Your task to perform on an android device: View the shopping cart on ebay.com. Search for logitech g903 on ebay.com, select the first entry, add it to the cart, then select checkout. Image 0: 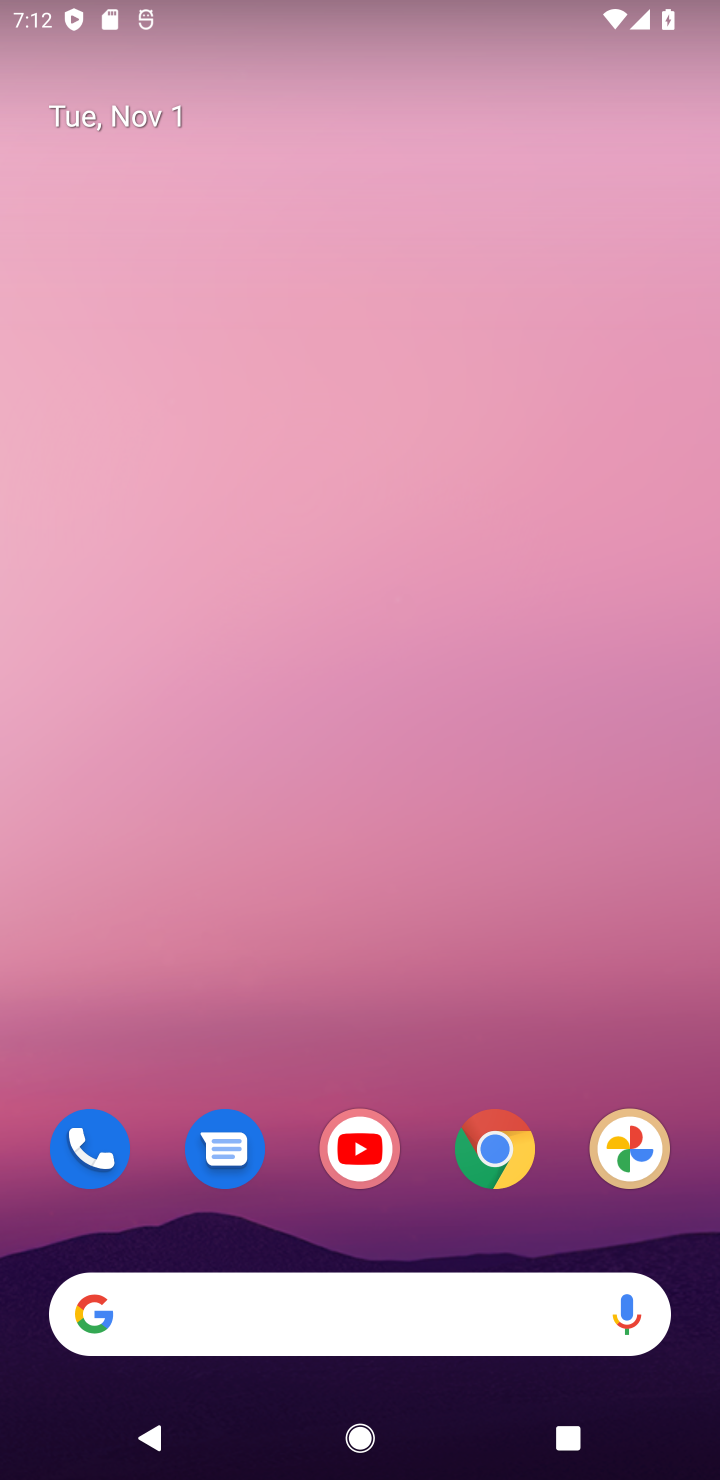
Step 0: drag from (416, 1246) to (576, 252)
Your task to perform on an android device: View the shopping cart on ebay.com. Search for logitech g903 on ebay.com, select the first entry, add it to the cart, then select checkout. Image 1: 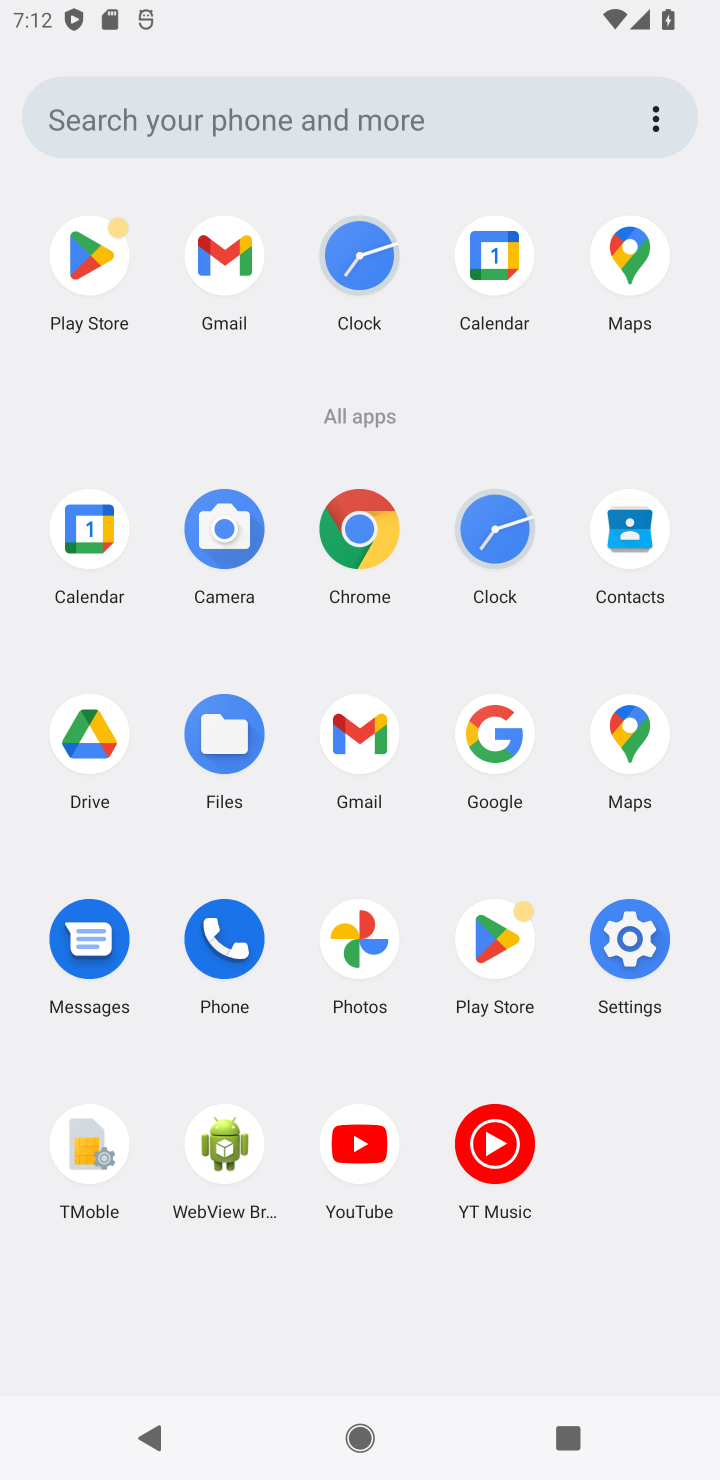
Step 1: click (359, 531)
Your task to perform on an android device: View the shopping cart on ebay.com. Search for logitech g903 on ebay.com, select the first entry, add it to the cart, then select checkout. Image 2: 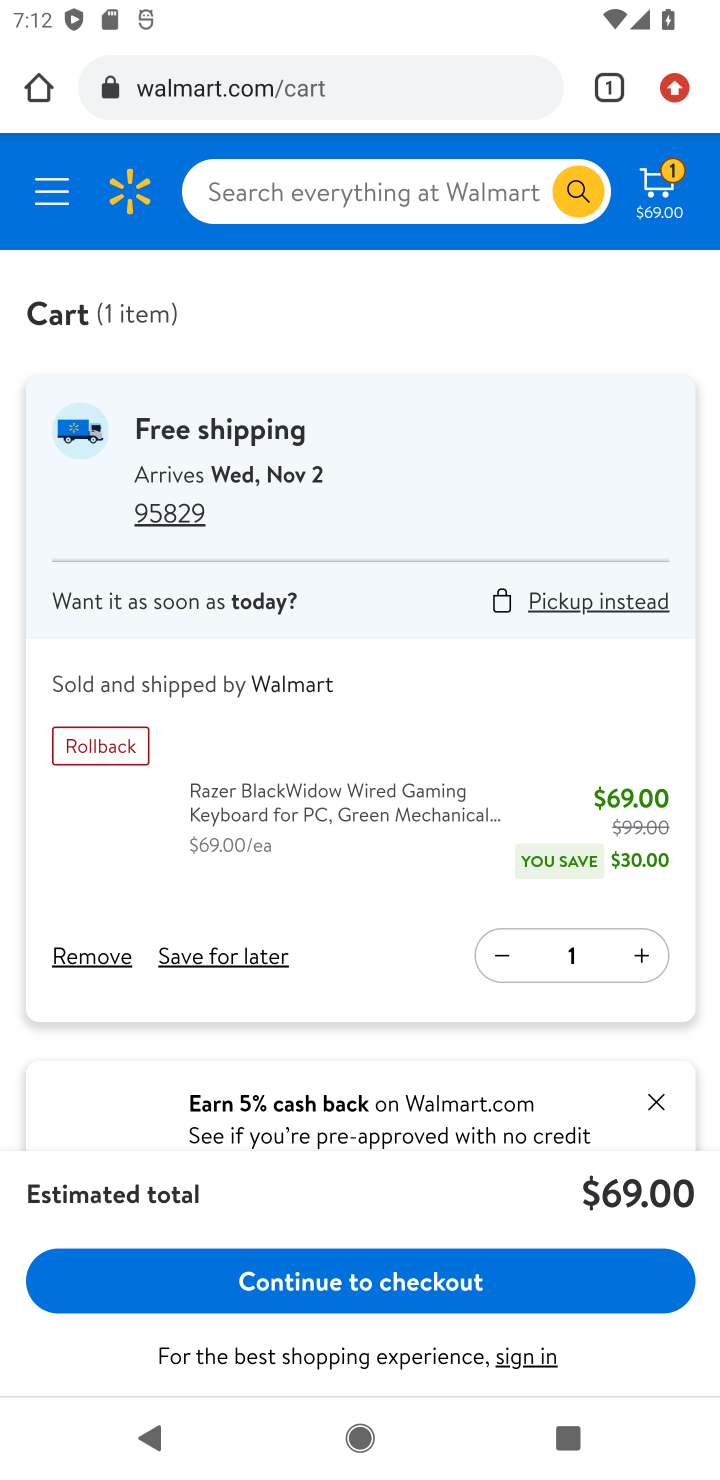
Step 2: click (206, 99)
Your task to perform on an android device: View the shopping cart on ebay.com. Search for logitech g903 on ebay.com, select the first entry, add it to the cart, then select checkout. Image 3: 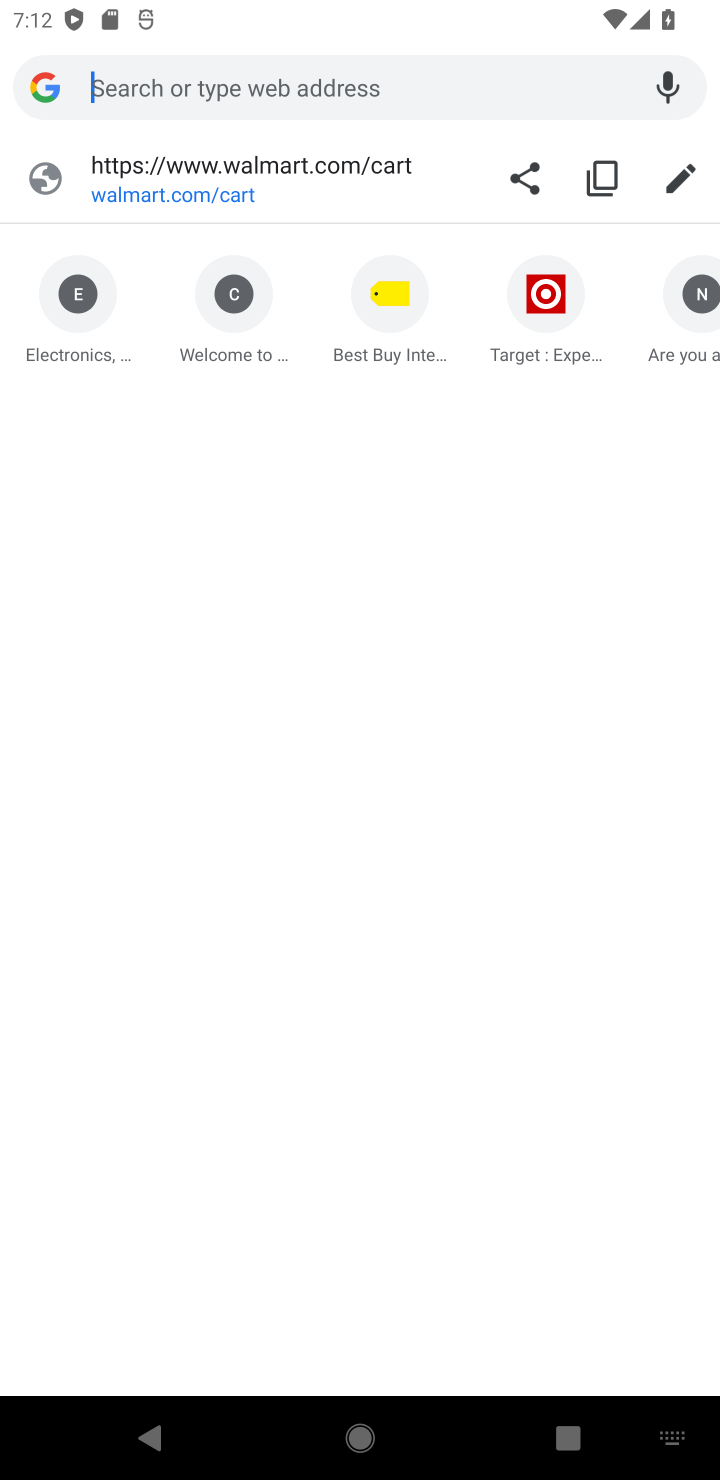
Step 3: type "ebay.com"
Your task to perform on an android device: View the shopping cart on ebay.com. Search for logitech g903 on ebay.com, select the first entry, add it to the cart, then select checkout. Image 4: 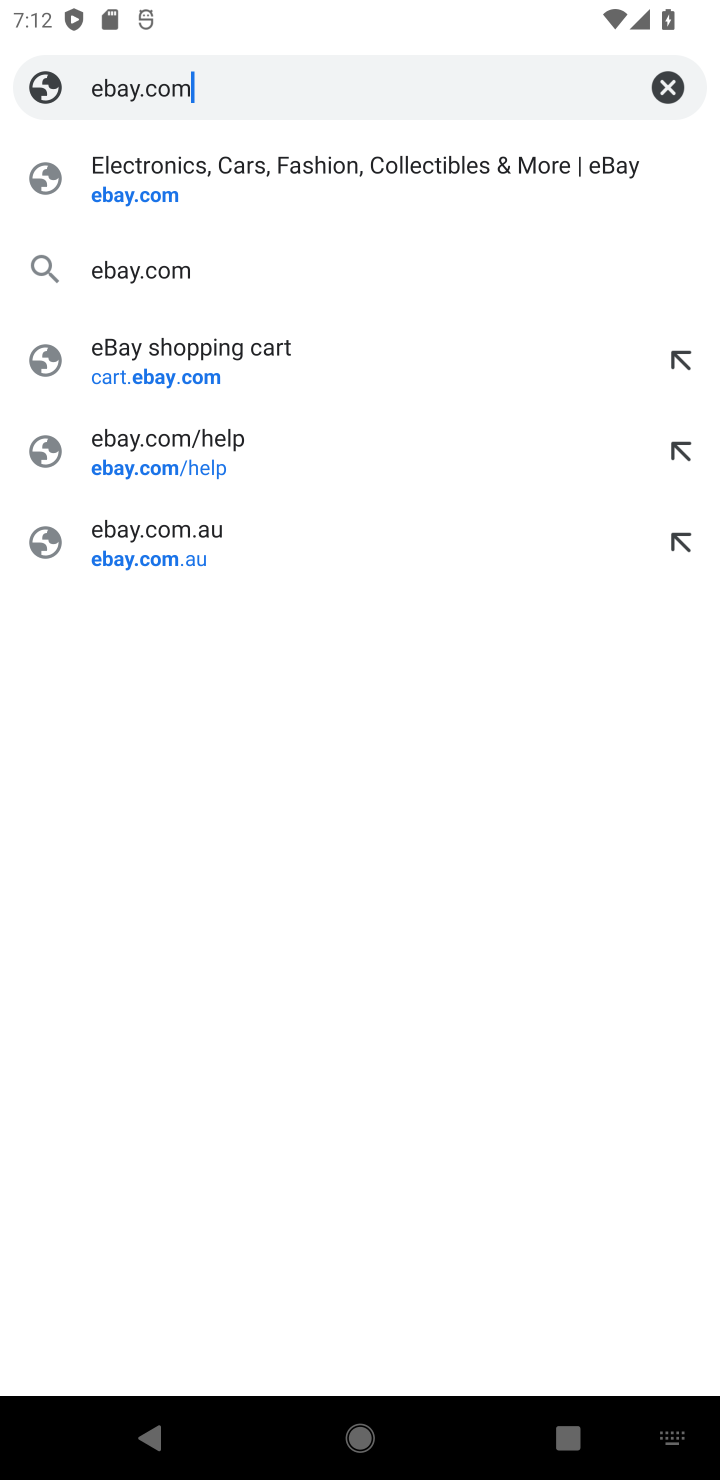
Step 4: press enter
Your task to perform on an android device: View the shopping cart on ebay.com. Search for logitech g903 on ebay.com, select the first entry, add it to the cart, then select checkout. Image 5: 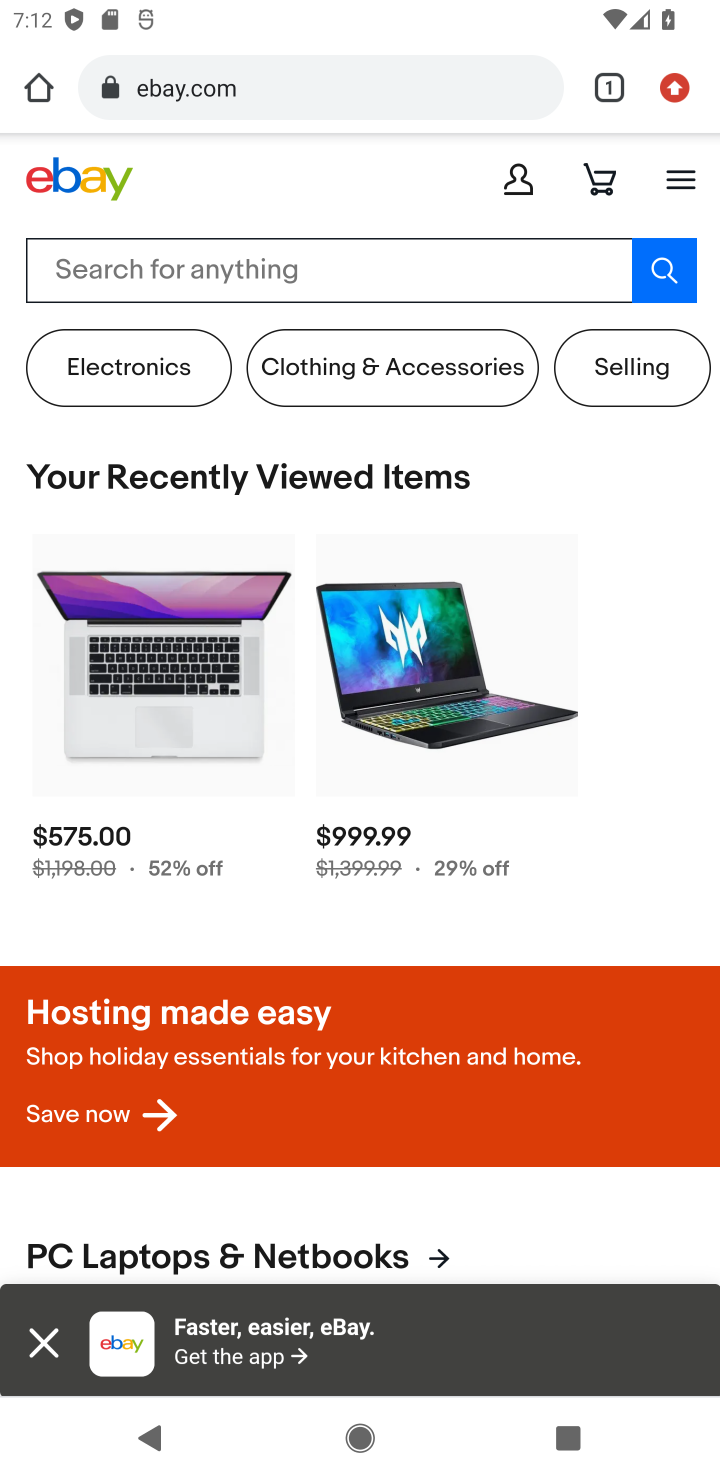
Step 5: click (611, 163)
Your task to perform on an android device: View the shopping cart on ebay.com. Search for logitech g903 on ebay.com, select the first entry, add it to the cart, then select checkout. Image 6: 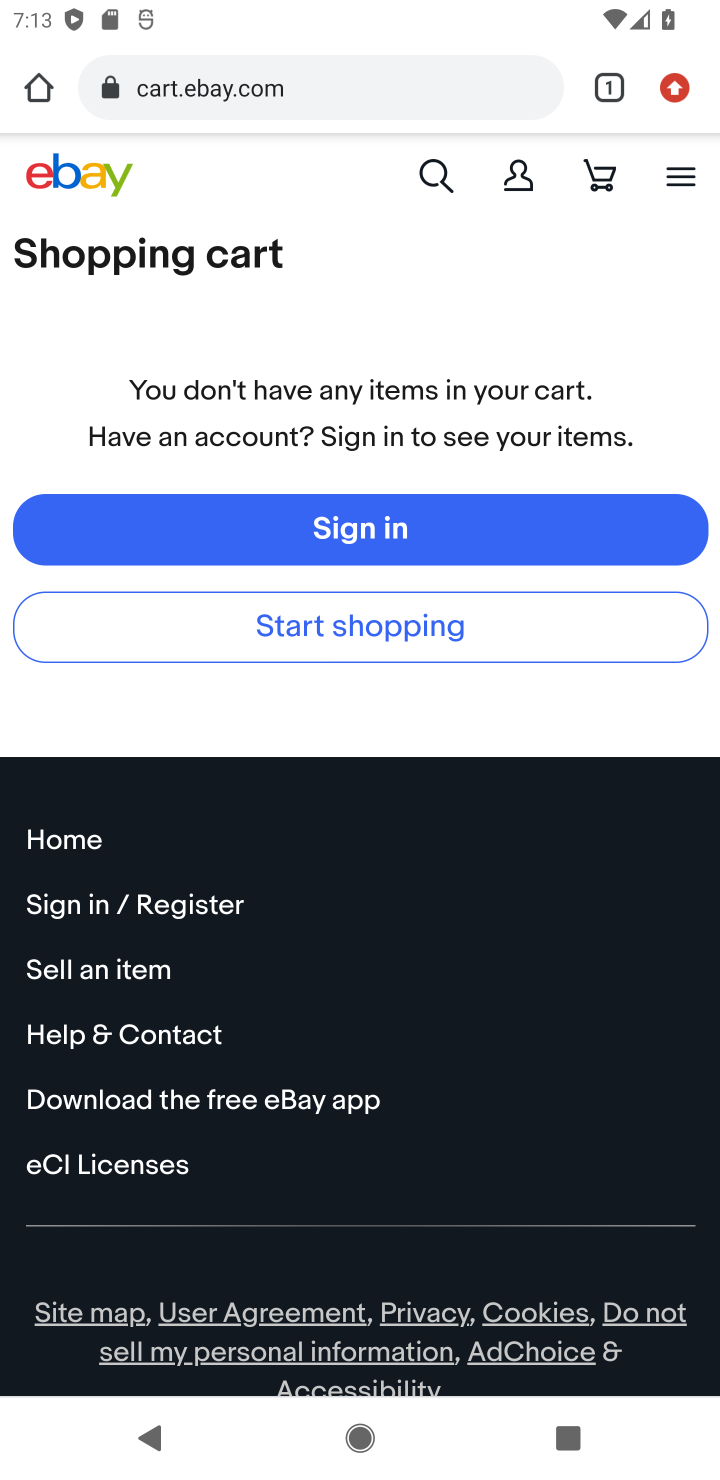
Step 6: click (436, 170)
Your task to perform on an android device: View the shopping cart on ebay.com. Search for logitech g903 on ebay.com, select the first entry, add it to the cart, then select checkout. Image 7: 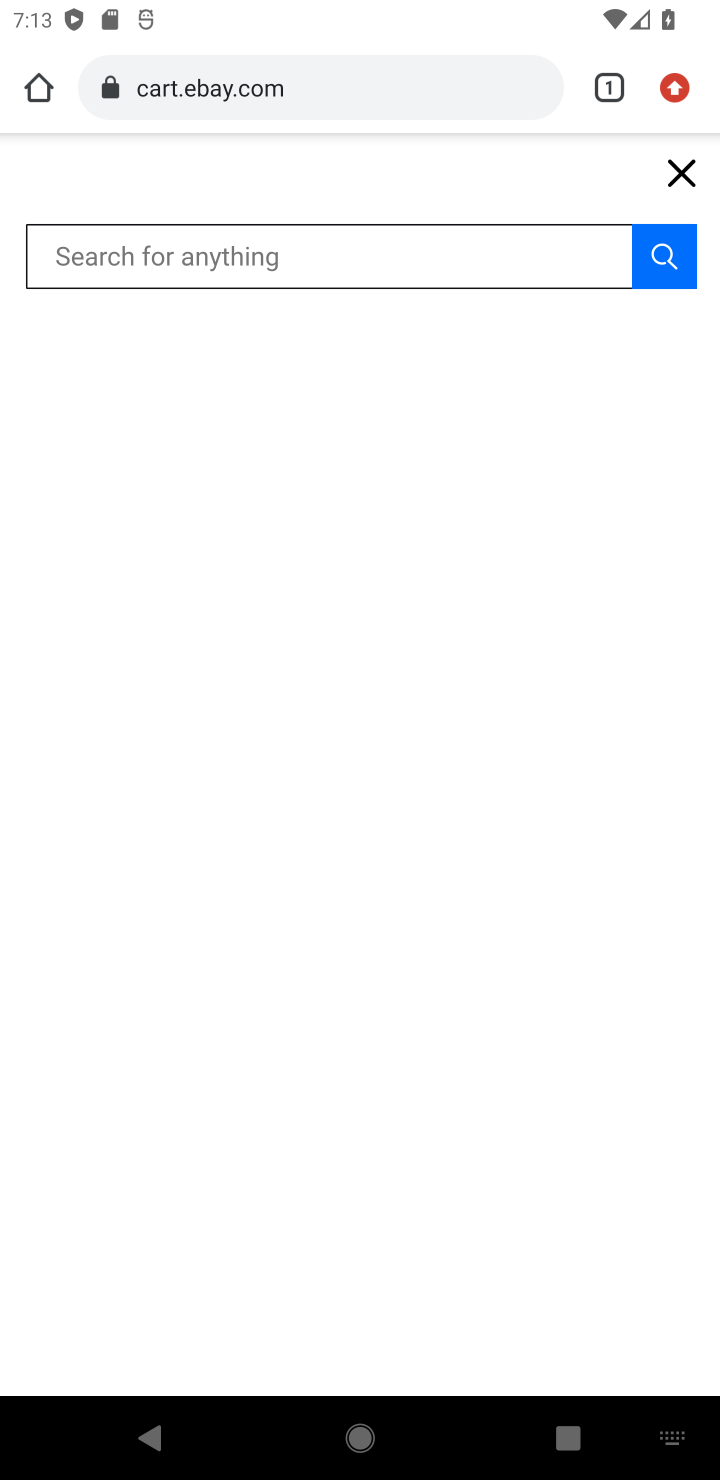
Step 7: type "logitech g903"
Your task to perform on an android device: View the shopping cart on ebay.com. Search for logitech g903 on ebay.com, select the first entry, add it to the cart, then select checkout. Image 8: 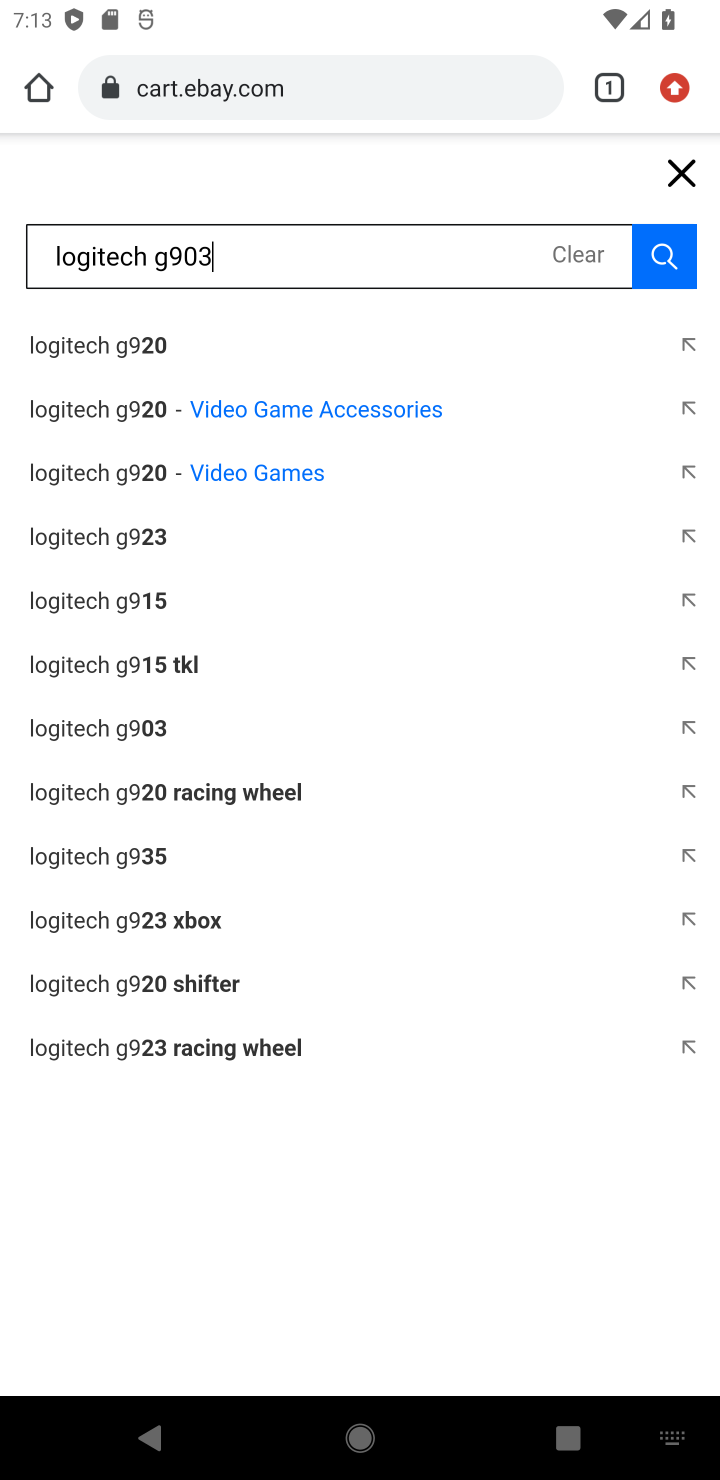
Step 8: press enter
Your task to perform on an android device: View the shopping cart on ebay.com. Search for logitech g903 on ebay.com, select the first entry, add it to the cart, then select checkout. Image 9: 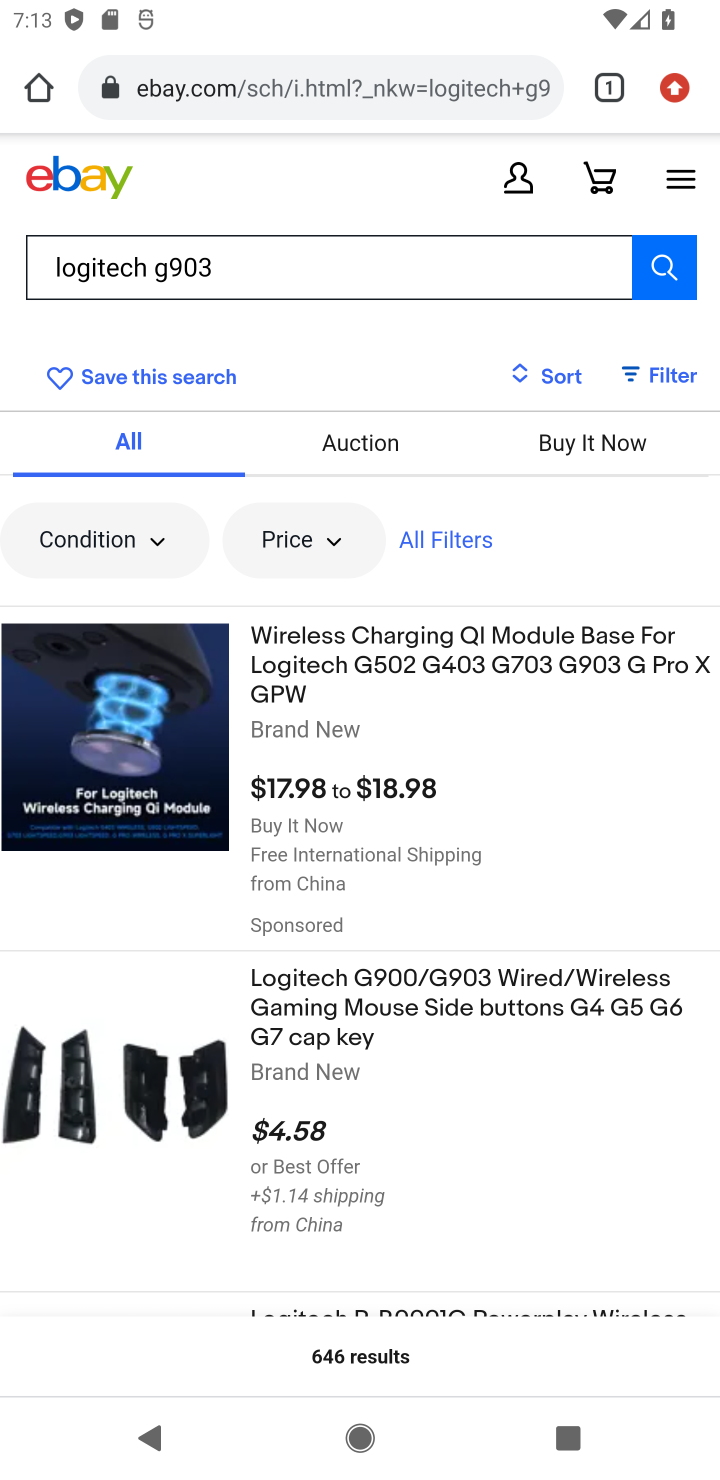
Step 9: task complete